Your task to perform on an android device: empty trash in google photos Image 0: 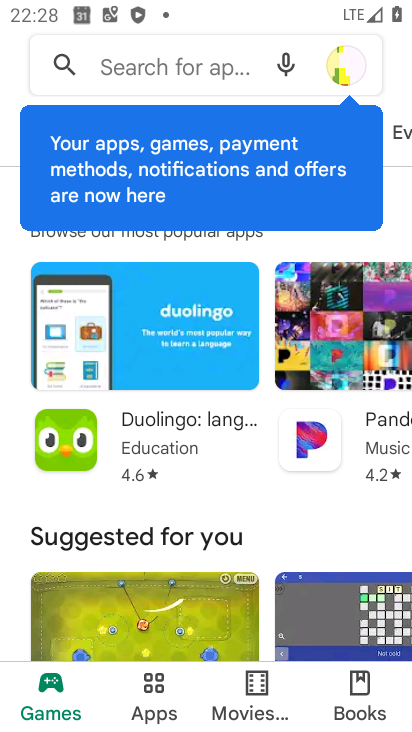
Step 0: press home button
Your task to perform on an android device: empty trash in google photos Image 1: 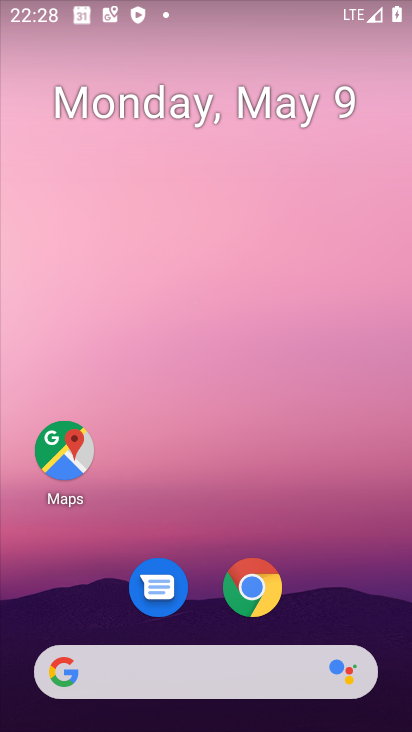
Step 1: drag from (201, 621) to (185, 206)
Your task to perform on an android device: empty trash in google photos Image 2: 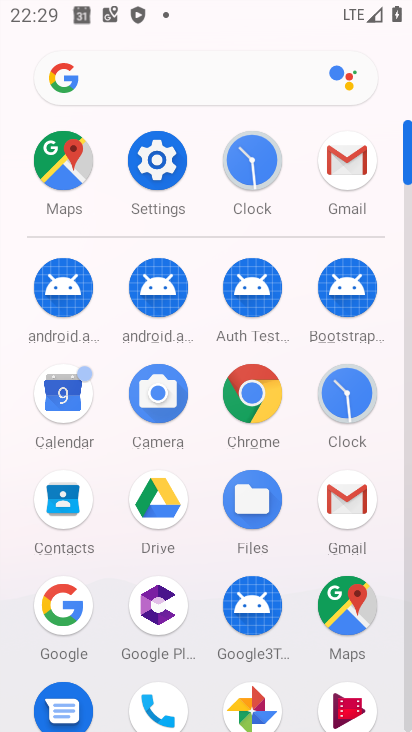
Step 2: click (247, 694)
Your task to perform on an android device: empty trash in google photos Image 3: 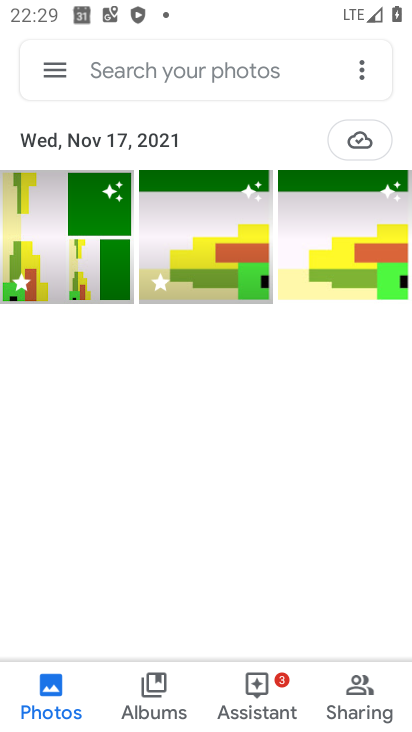
Step 3: click (67, 80)
Your task to perform on an android device: empty trash in google photos Image 4: 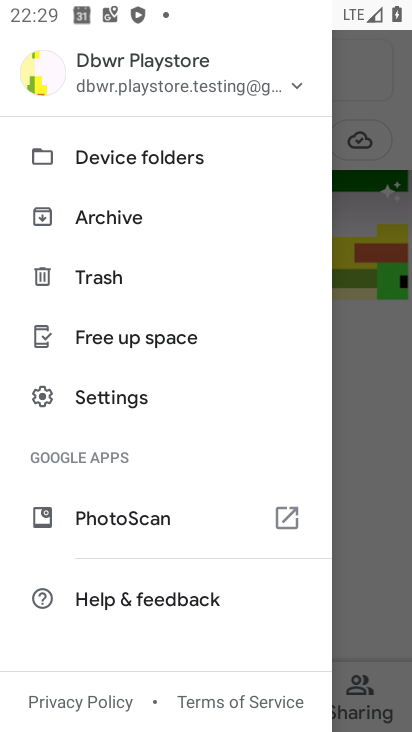
Step 4: click (191, 284)
Your task to perform on an android device: empty trash in google photos Image 5: 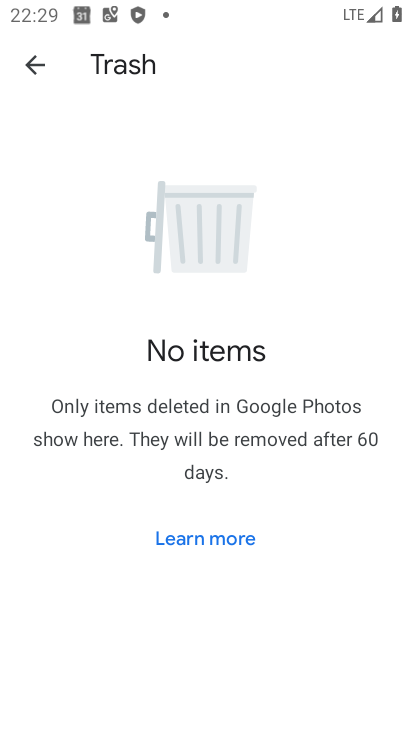
Step 5: task complete